Your task to perform on an android device: Go to Wikipedia Image 0: 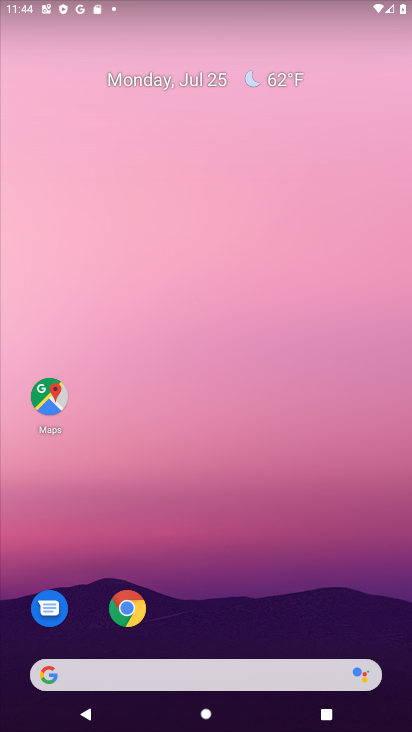
Step 0: click (253, 669)
Your task to perform on an android device: Go to Wikipedia Image 1: 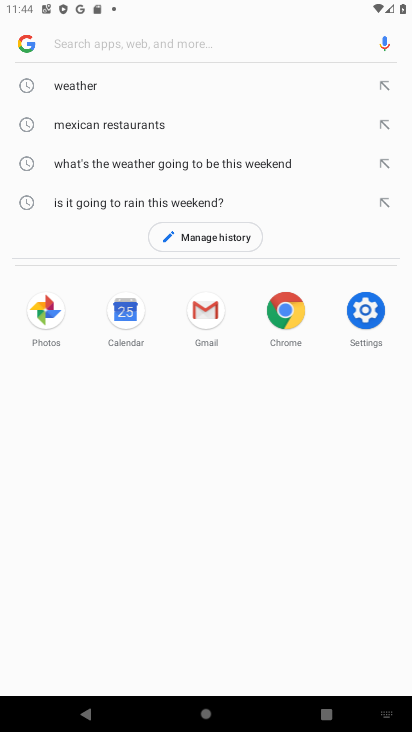
Step 1: type "Wikipedia"
Your task to perform on an android device: Go to Wikipedia Image 2: 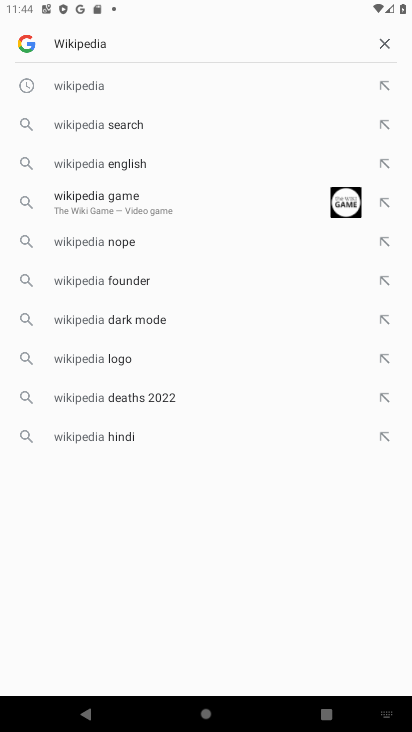
Step 2: press enter
Your task to perform on an android device: Go to Wikipedia Image 3: 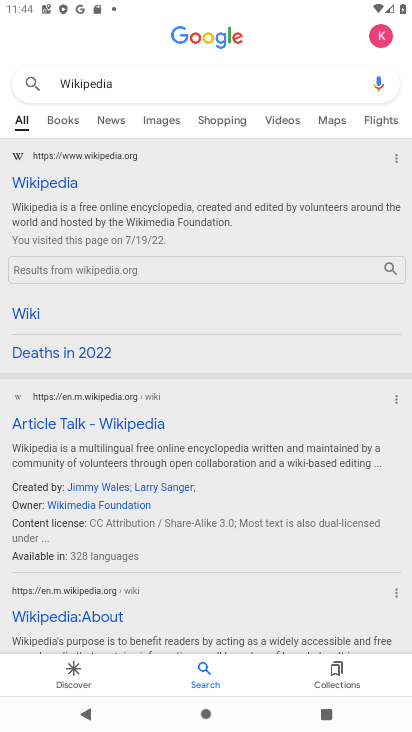
Step 3: task complete